Your task to perform on an android device: change the clock display to analog Image 0: 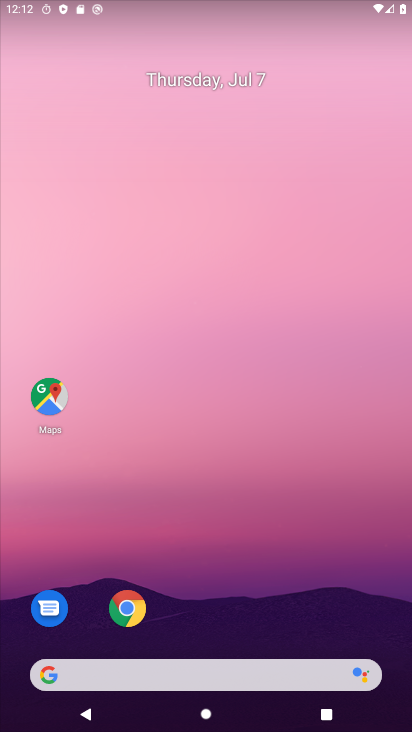
Step 0: drag from (205, 570) to (246, 18)
Your task to perform on an android device: change the clock display to analog Image 1: 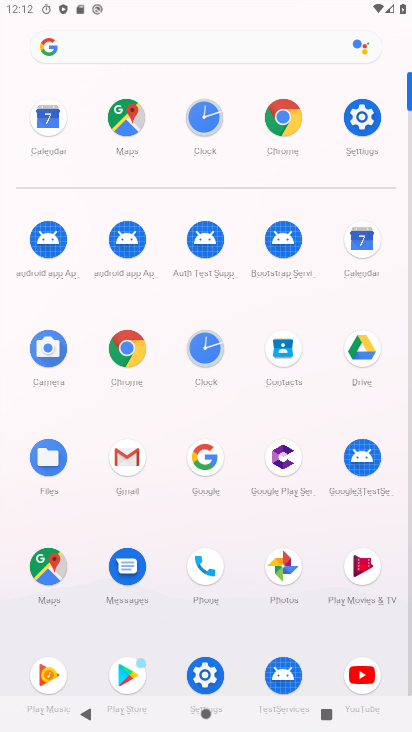
Step 1: click (209, 340)
Your task to perform on an android device: change the clock display to analog Image 2: 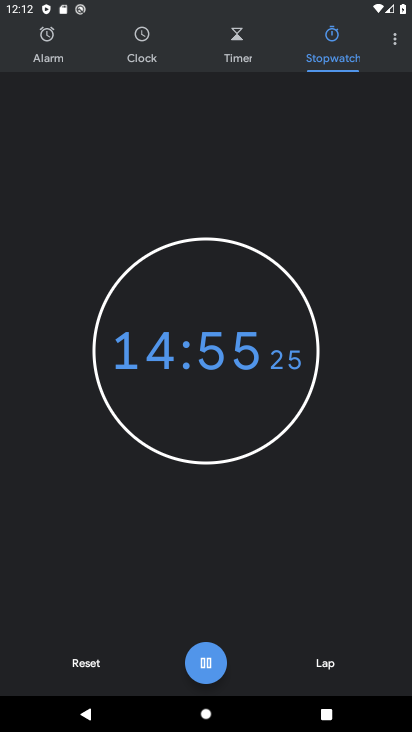
Step 2: click (394, 40)
Your task to perform on an android device: change the clock display to analog Image 3: 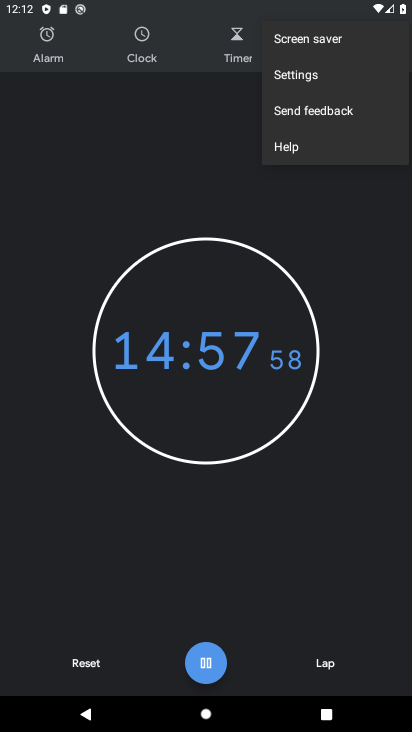
Step 3: click (307, 76)
Your task to perform on an android device: change the clock display to analog Image 4: 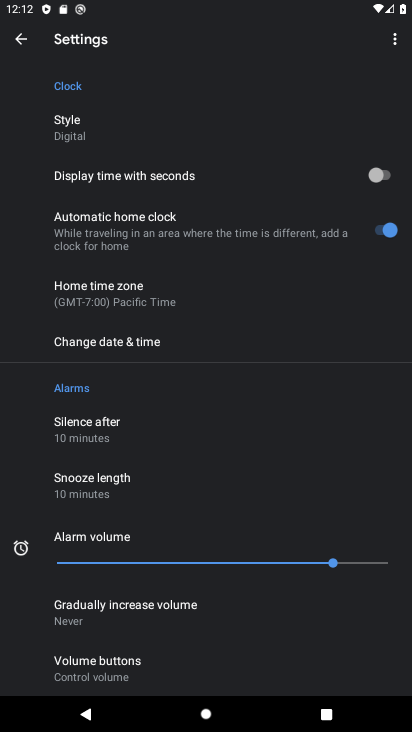
Step 4: click (96, 116)
Your task to perform on an android device: change the clock display to analog Image 5: 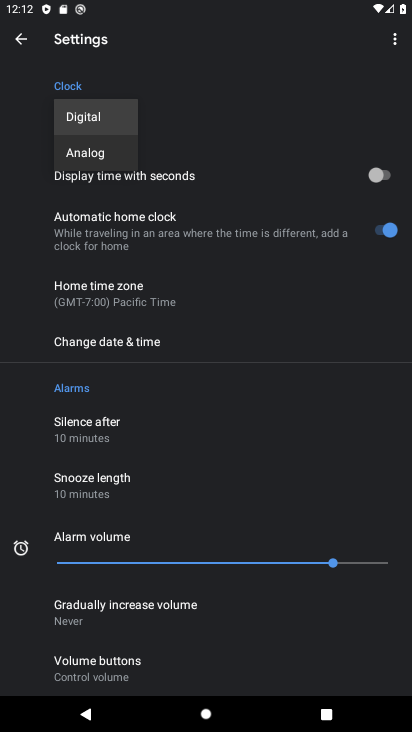
Step 5: click (109, 147)
Your task to perform on an android device: change the clock display to analog Image 6: 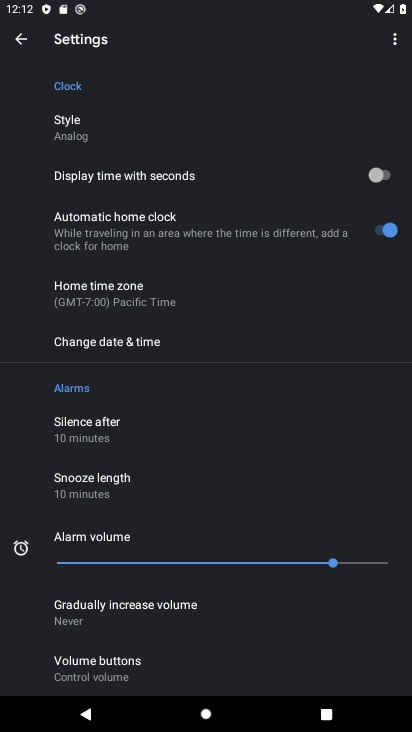
Step 6: task complete